Your task to perform on an android device: Open Reddit.com Image 0: 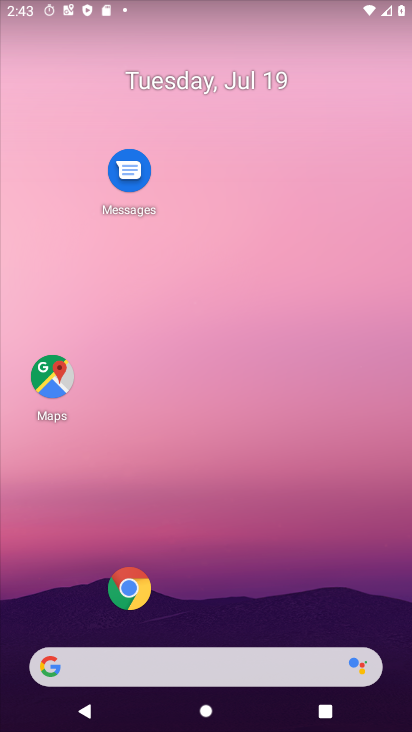
Step 0: click (49, 703)
Your task to perform on an android device: Open Reddit.com Image 1: 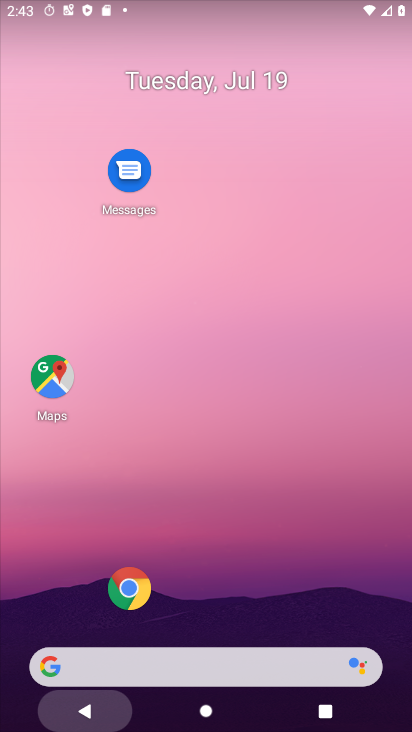
Step 1: click (84, 674)
Your task to perform on an android device: Open Reddit.com Image 2: 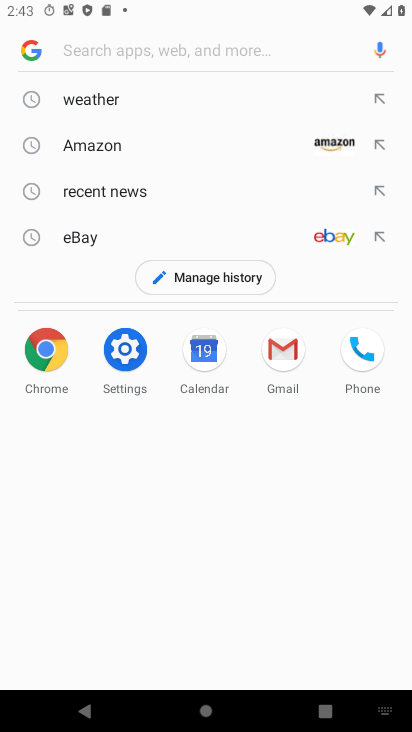
Step 2: type "Reddit.com"
Your task to perform on an android device: Open Reddit.com Image 3: 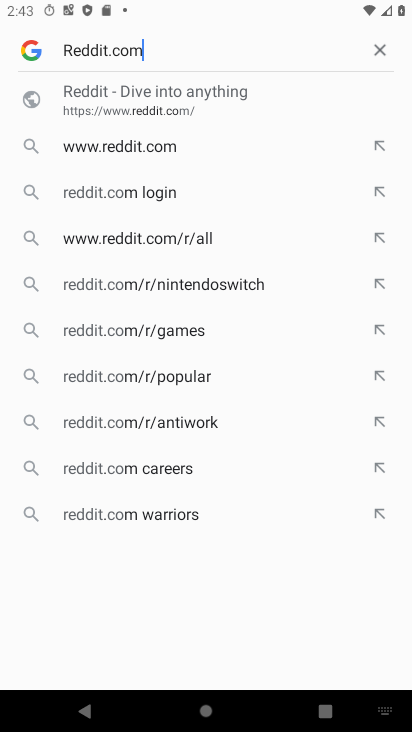
Step 3: type ""
Your task to perform on an android device: Open Reddit.com Image 4: 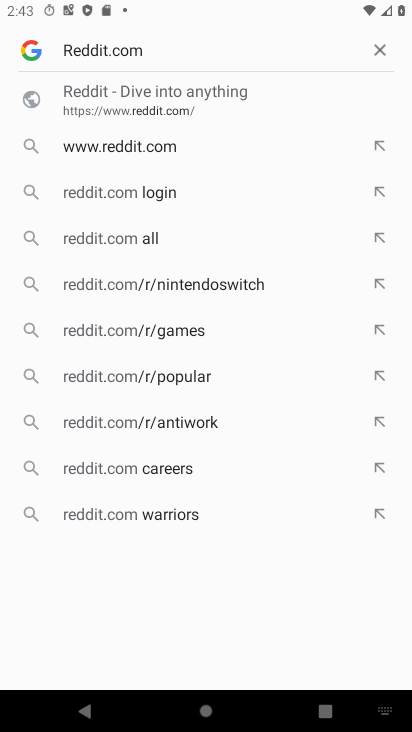
Step 4: type ""
Your task to perform on an android device: Open Reddit.com Image 5: 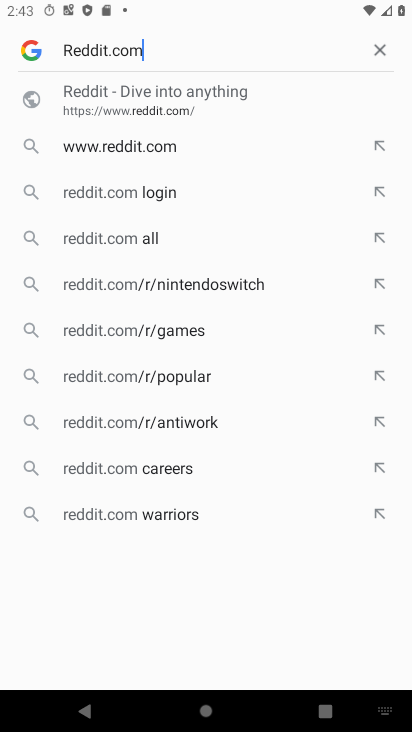
Step 5: type ""
Your task to perform on an android device: Open Reddit.com Image 6: 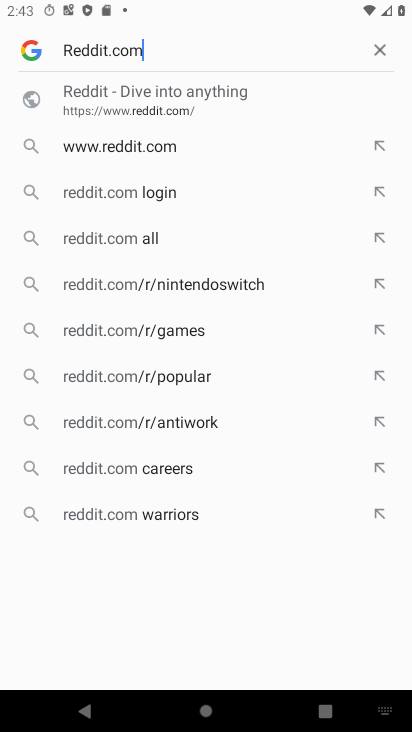
Step 6: type ""
Your task to perform on an android device: Open Reddit.com Image 7: 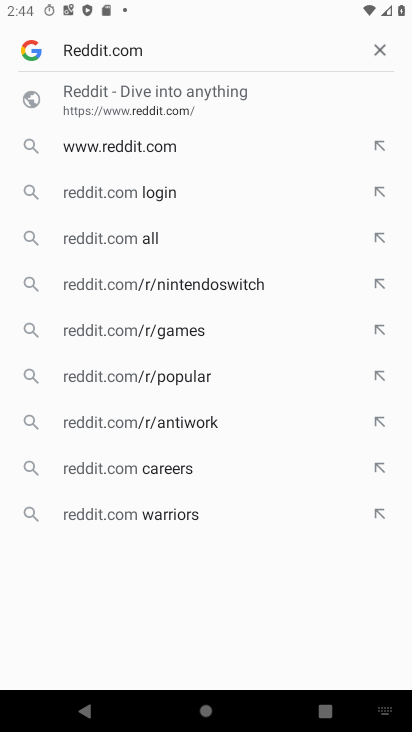
Step 7: task complete